Your task to perform on an android device: open app "Walmart Shopping & Grocery" (install if not already installed) Image 0: 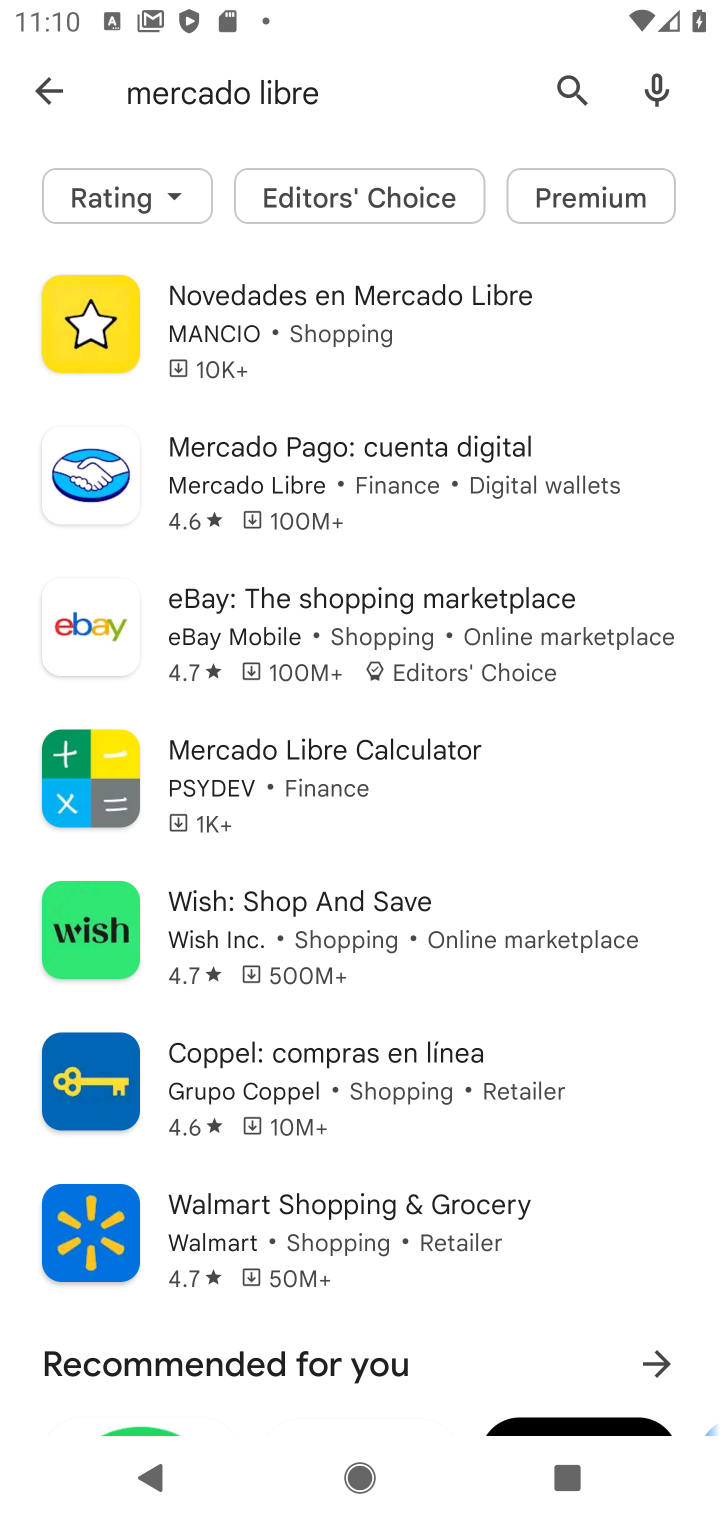
Step 0: click (267, 70)
Your task to perform on an android device: open app "Walmart Shopping & Grocery" (install if not already installed) Image 1: 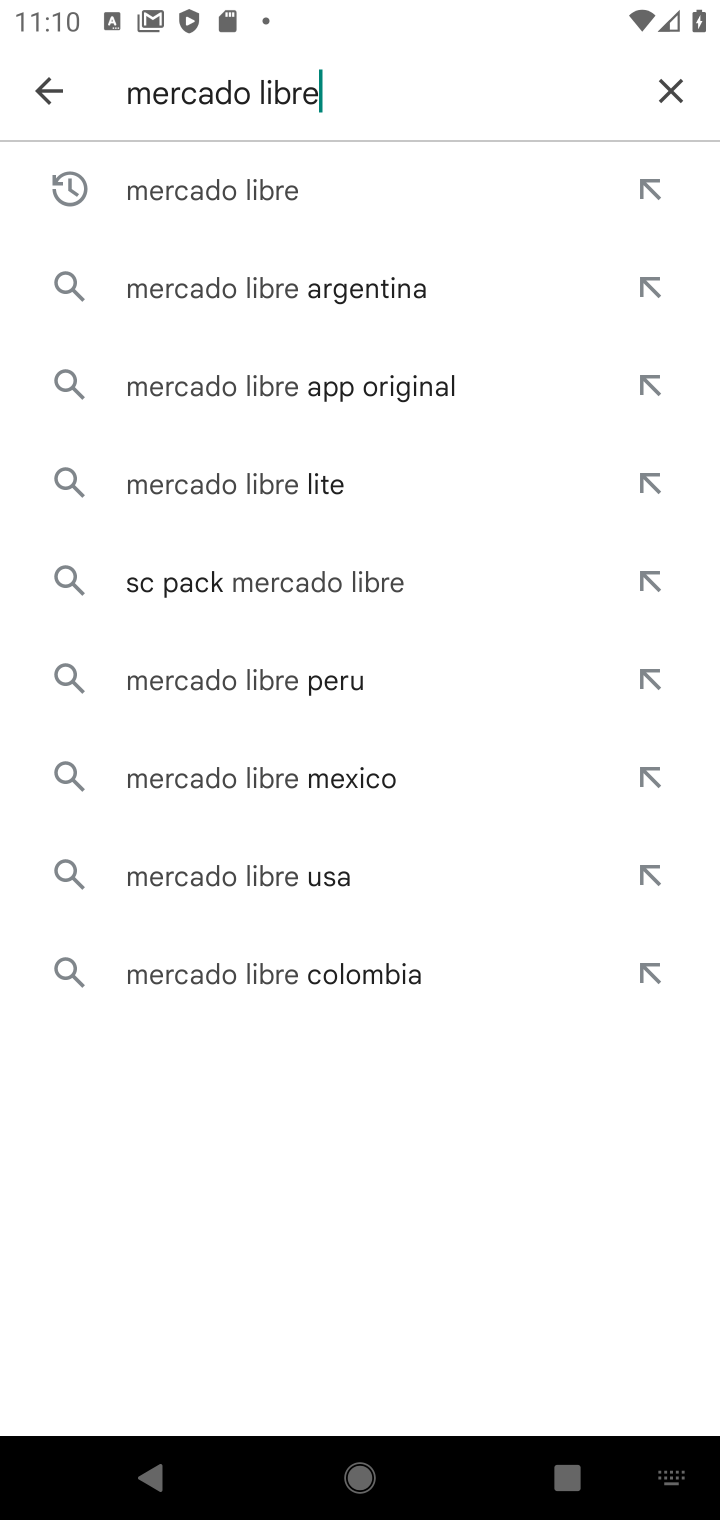
Step 1: click (666, 88)
Your task to perform on an android device: open app "Walmart Shopping & Grocery" (install if not already installed) Image 2: 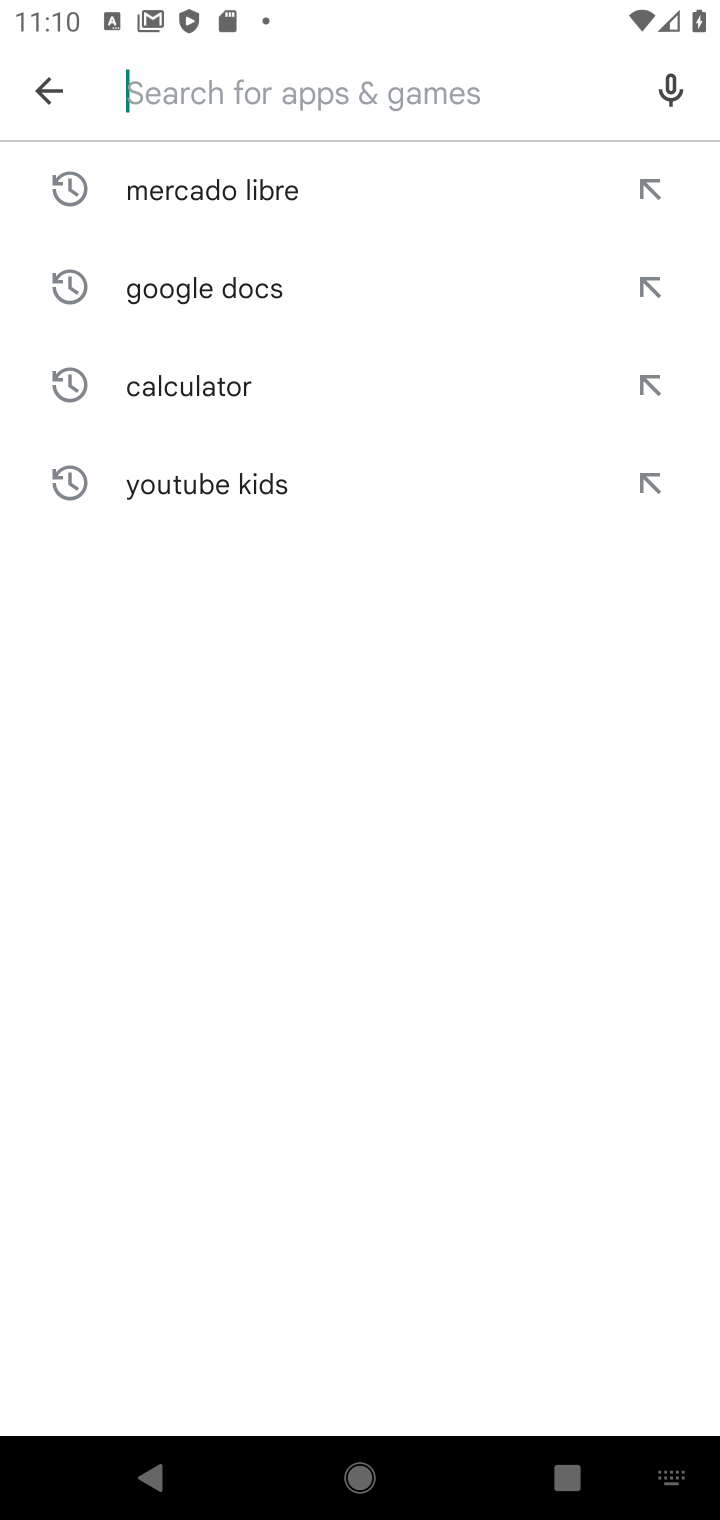
Step 2: type "Walmart"
Your task to perform on an android device: open app "Walmart Shopping & Grocery" (install if not already installed) Image 3: 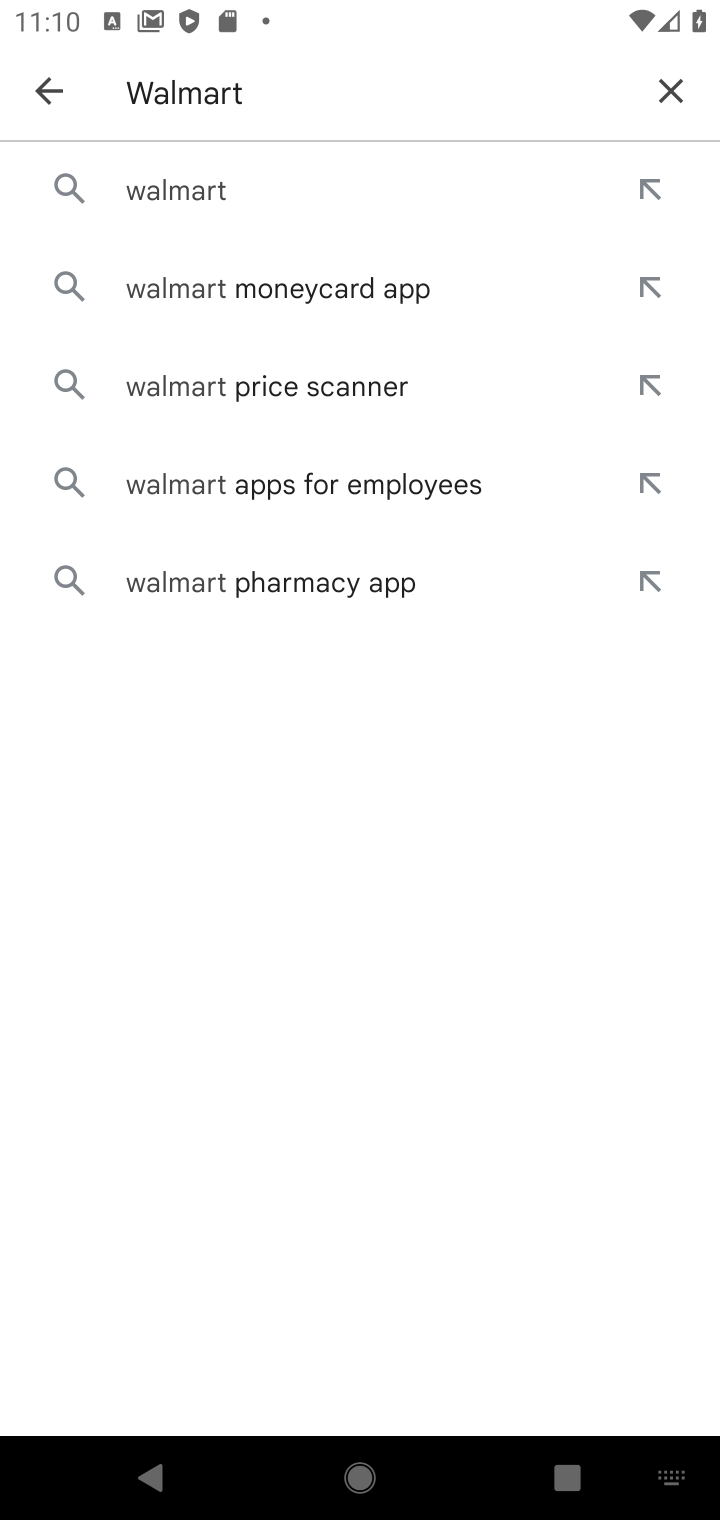
Step 3: click (185, 196)
Your task to perform on an android device: open app "Walmart Shopping & Grocery" (install if not already installed) Image 4: 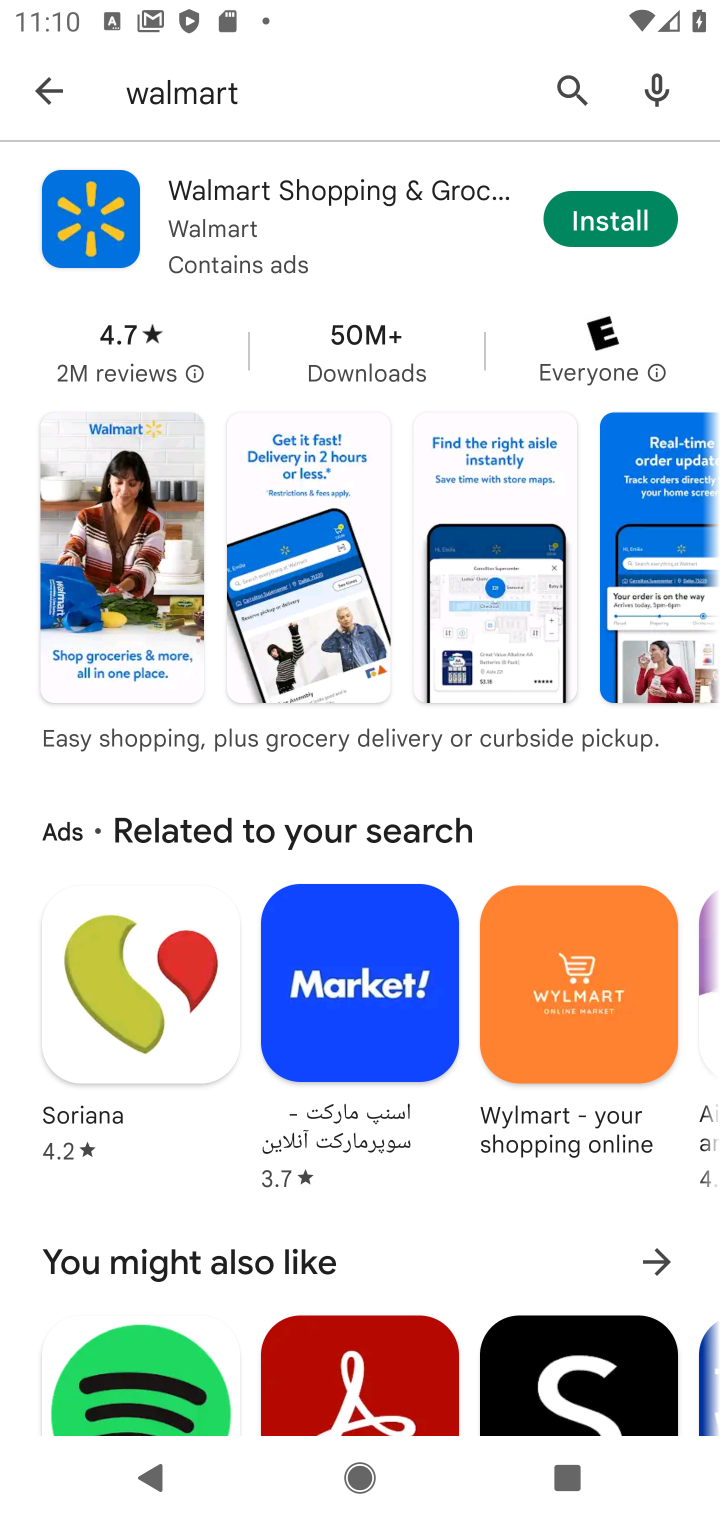
Step 4: click (635, 221)
Your task to perform on an android device: open app "Walmart Shopping & Grocery" (install if not already installed) Image 5: 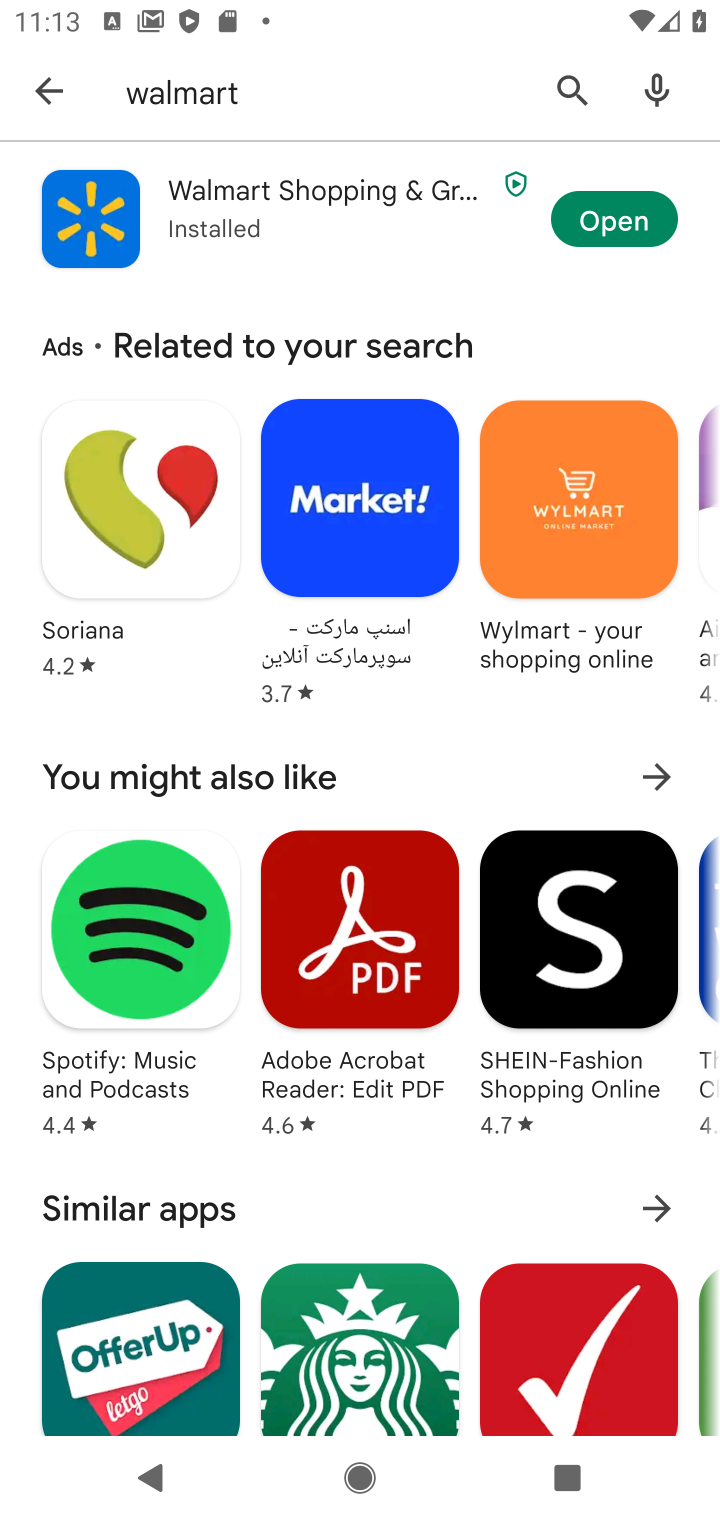
Step 5: click (617, 227)
Your task to perform on an android device: open app "Walmart Shopping & Grocery" (install if not already installed) Image 6: 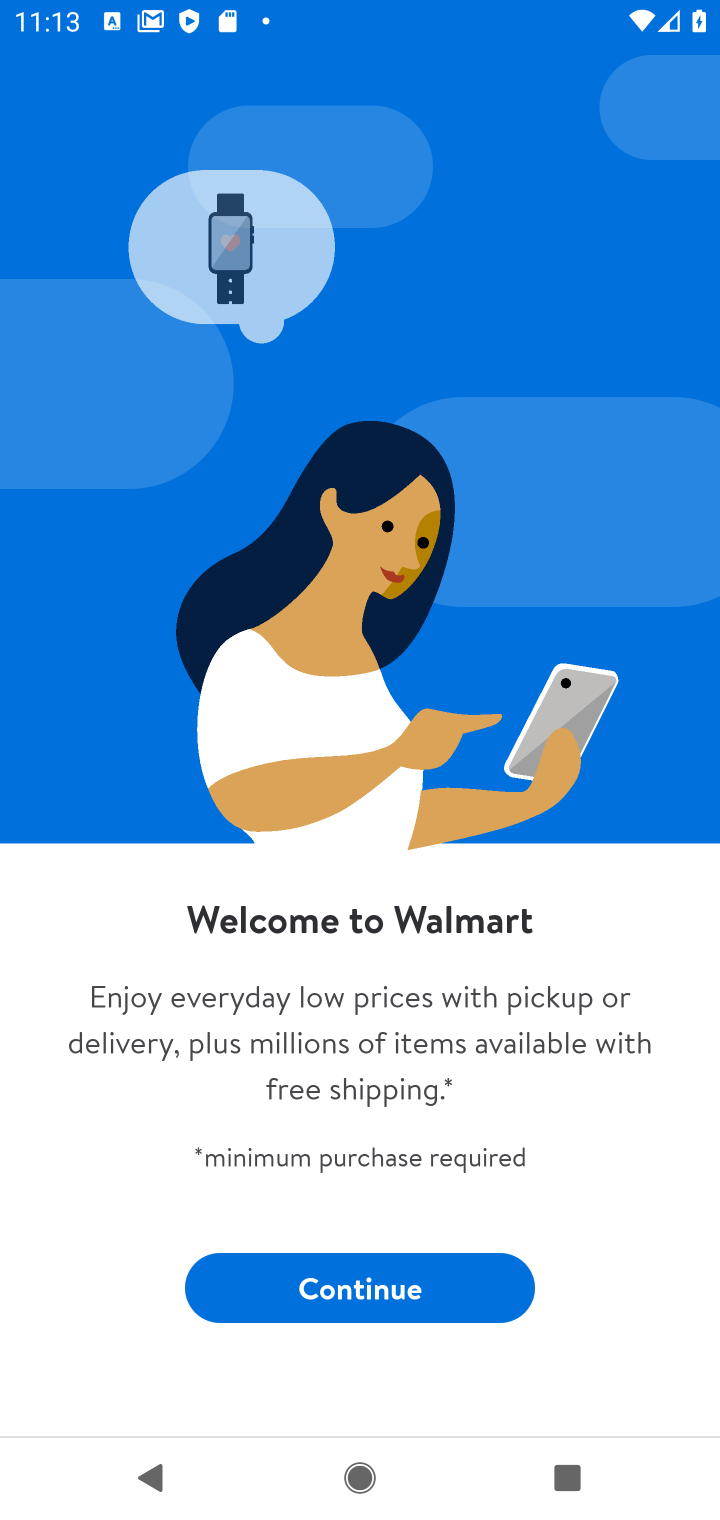
Step 6: click (396, 1273)
Your task to perform on an android device: open app "Walmart Shopping & Grocery" (install if not already installed) Image 7: 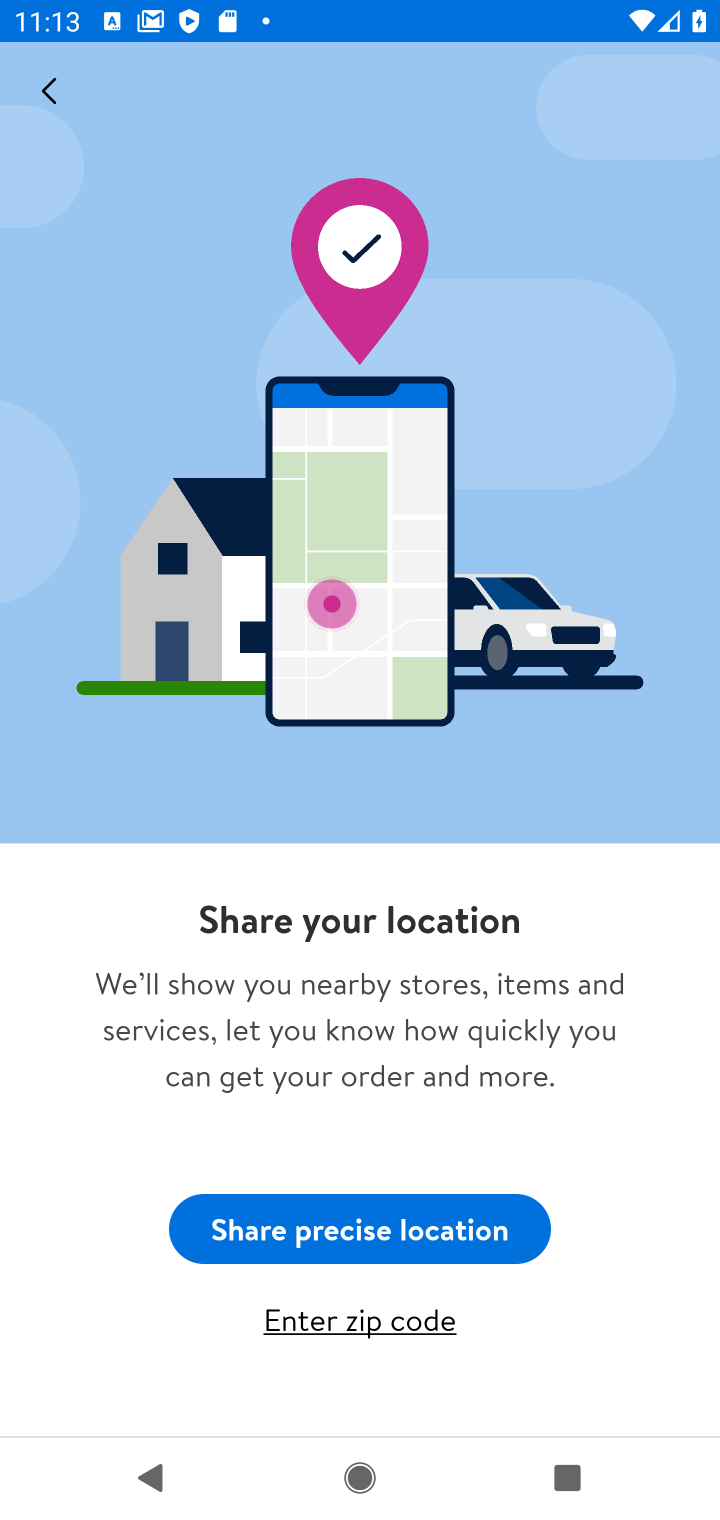
Step 7: click (459, 1232)
Your task to perform on an android device: open app "Walmart Shopping & Grocery" (install if not already installed) Image 8: 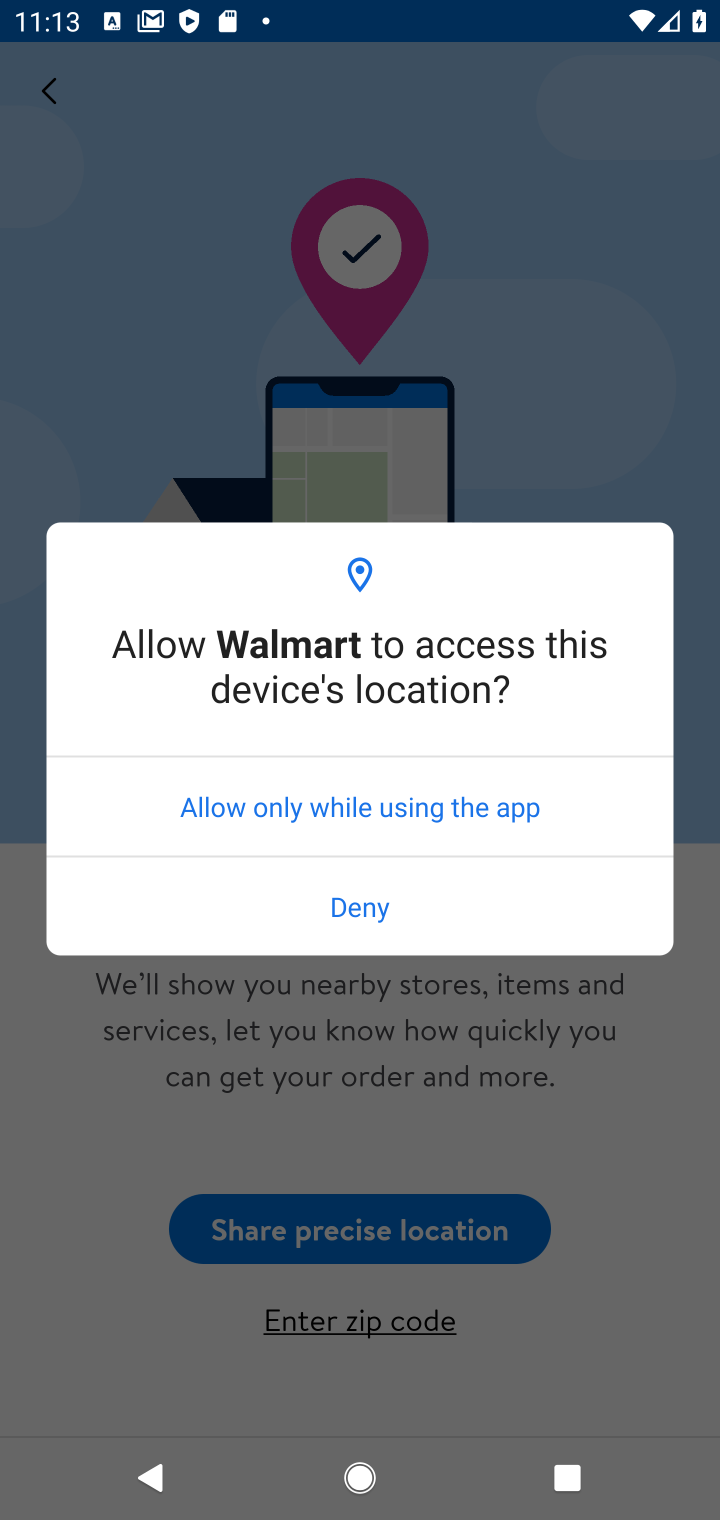
Step 8: click (390, 782)
Your task to perform on an android device: open app "Walmart Shopping & Grocery" (install if not already installed) Image 9: 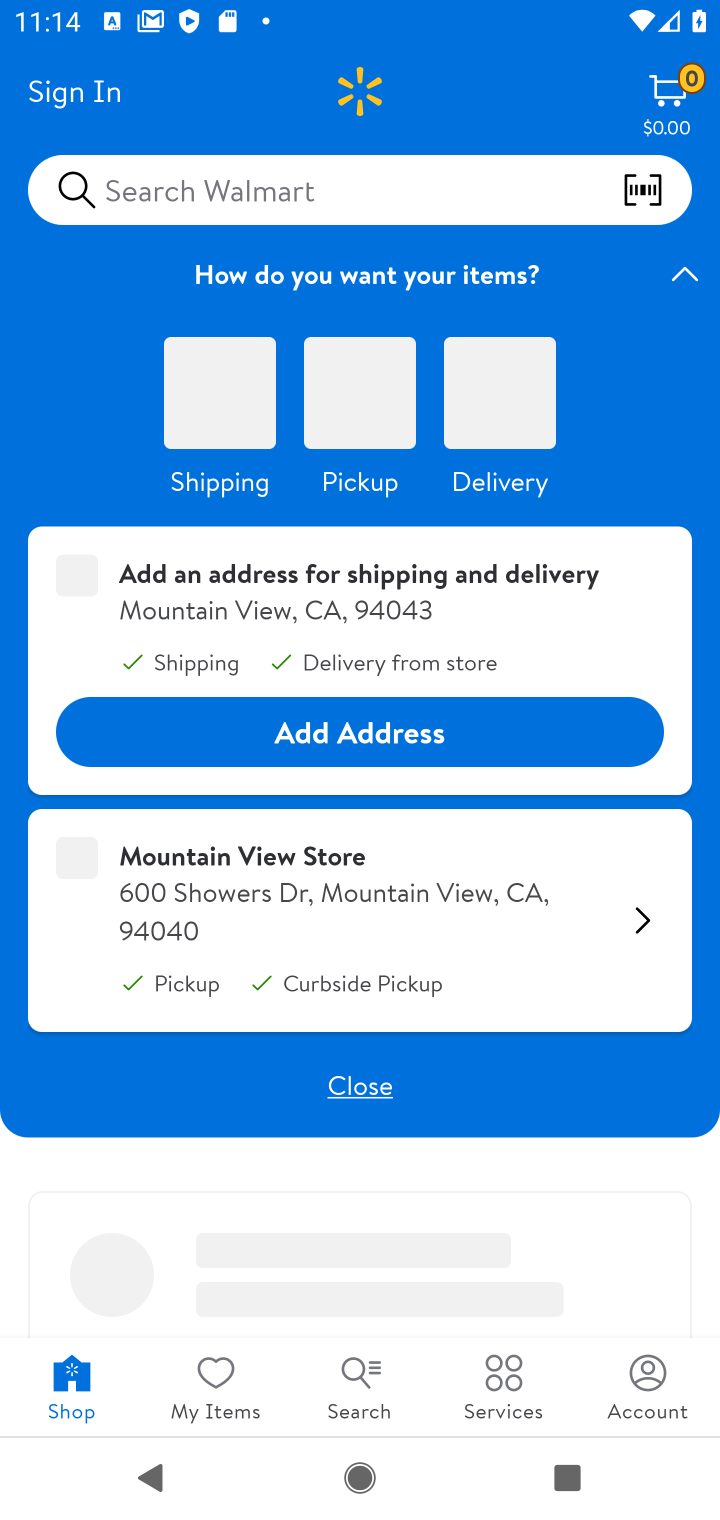
Step 9: task complete